Your task to perform on an android device: manage bookmarks in the chrome app Image 0: 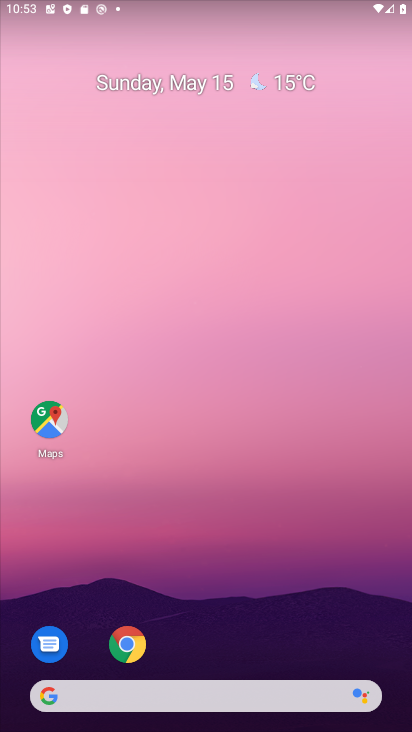
Step 0: click (123, 632)
Your task to perform on an android device: manage bookmarks in the chrome app Image 1: 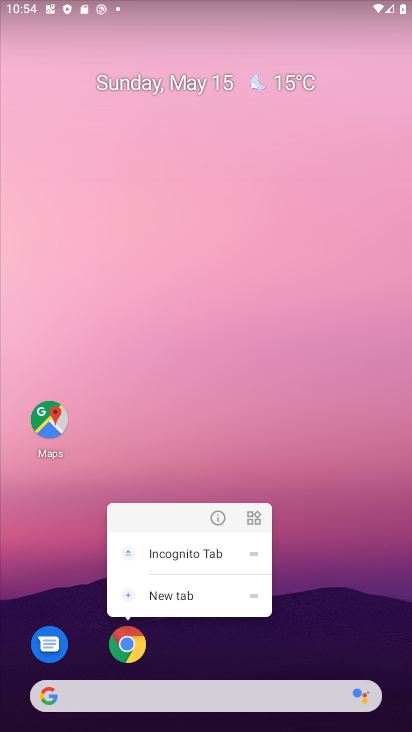
Step 1: click (134, 640)
Your task to perform on an android device: manage bookmarks in the chrome app Image 2: 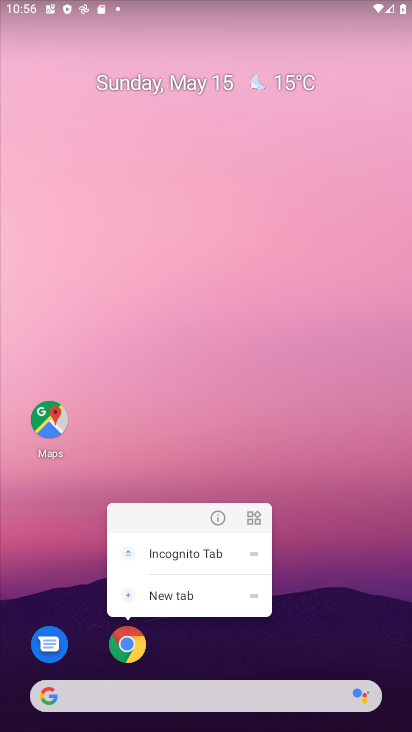
Step 2: click (135, 633)
Your task to perform on an android device: manage bookmarks in the chrome app Image 3: 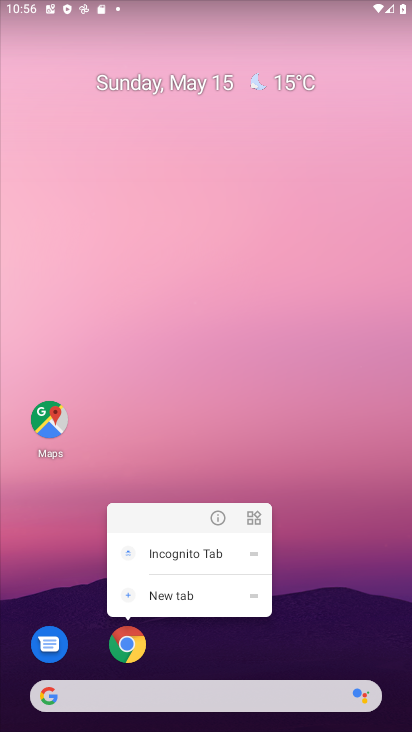
Step 3: task complete